Your task to perform on an android device: turn on priority inbox in the gmail app Image 0: 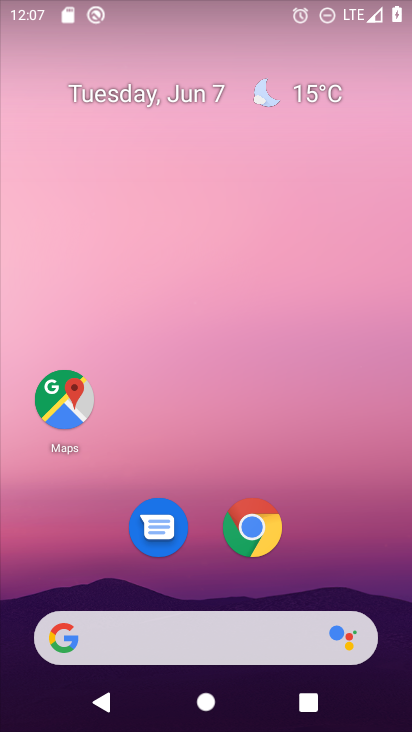
Step 0: drag from (362, 564) to (305, 117)
Your task to perform on an android device: turn on priority inbox in the gmail app Image 1: 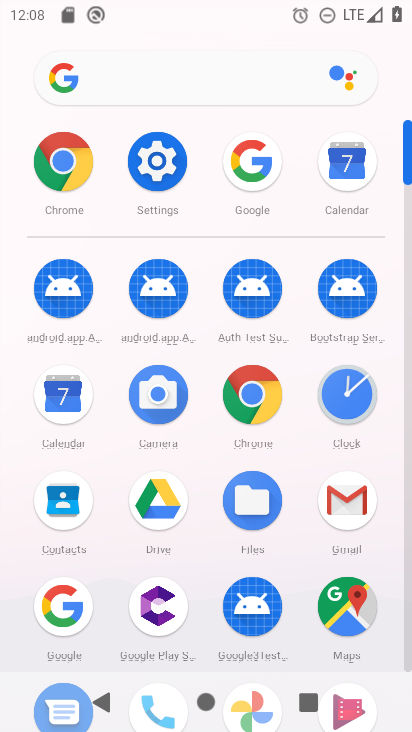
Step 1: click (351, 506)
Your task to perform on an android device: turn on priority inbox in the gmail app Image 2: 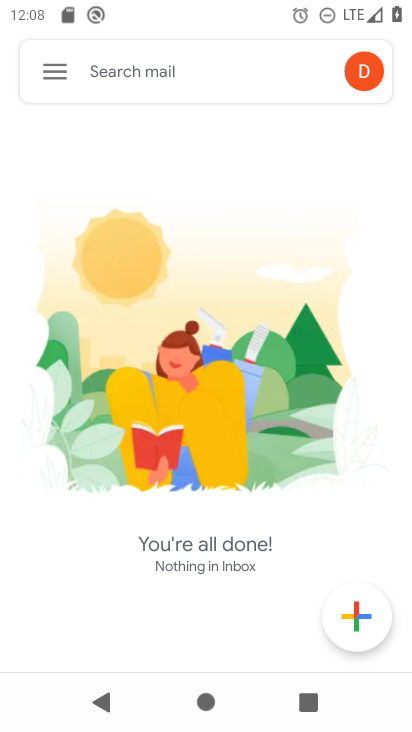
Step 2: click (48, 71)
Your task to perform on an android device: turn on priority inbox in the gmail app Image 3: 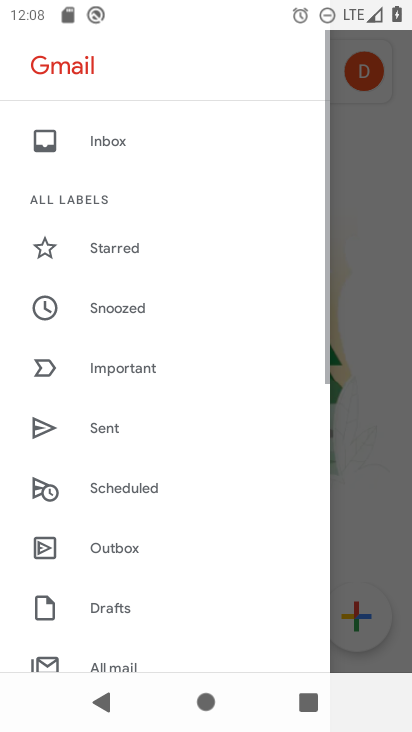
Step 3: drag from (252, 436) to (232, 298)
Your task to perform on an android device: turn on priority inbox in the gmail app Image 4: 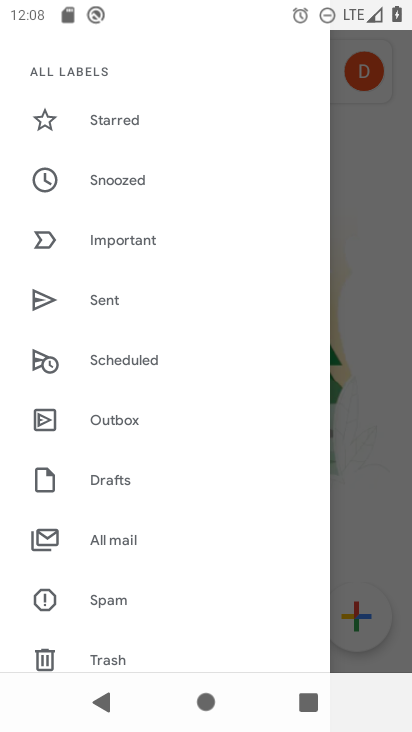
Step 4: drag from (246, 472) to (242, 314)
Your task to perform on an android device: turn on priority inbox in the gmail app Image 5: 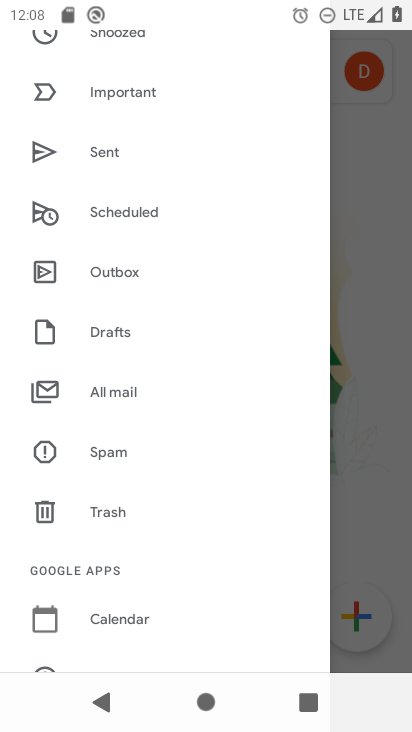
Step 5: drag from (252, 495) to (255, 315)
Your task to perform on an android device: turn on priority inbox in the gmail app Image 6: 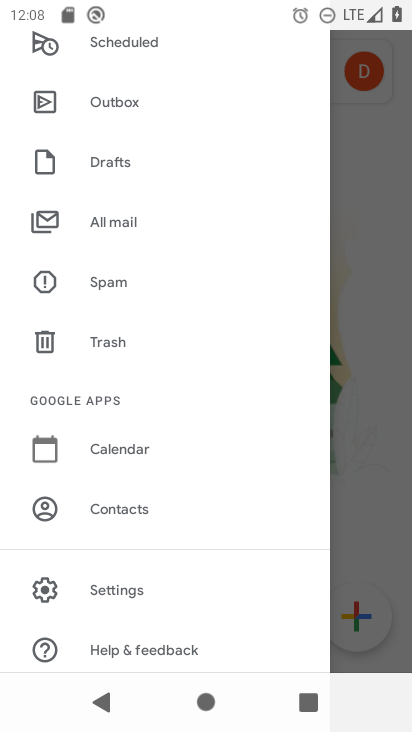
Step 6: drag from (257, 532) to (249, 383)
Your task to perform on an android device: turn on priority inbox in the gmail app Image 7: 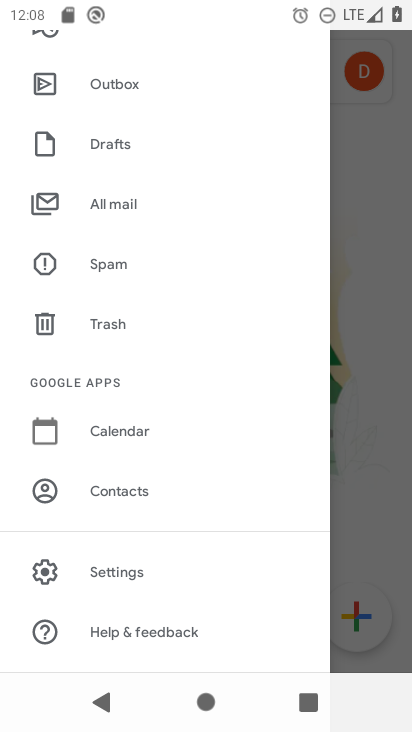
Step 7: click (180, 577)
Your task to perform on an android device: turn on priority inbox in the gmail app Image 8: 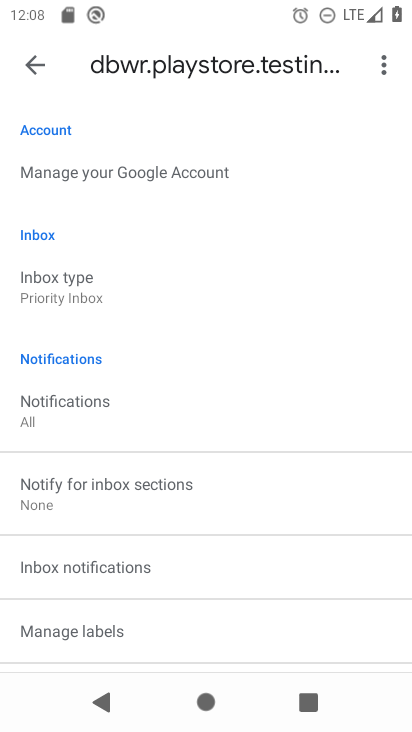
Step 8: drag from (276, 232) to (294, 421)
Your task to perform on an android device: turn on priority inbox in the gmail app Image 9: 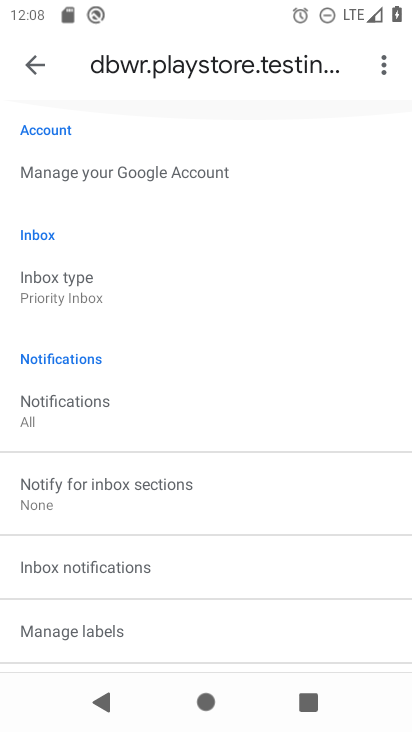
Step 9: drag from (312, 504) to (315, 301)
Your task to perform on an android device: turn on priority inbox in the gmail app Image 10: 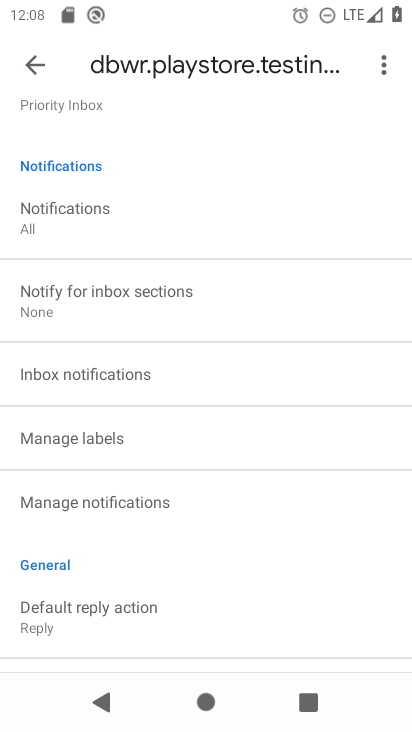
Step 10: drag from (320, 466) to (302, 287)
Your task to perform on an android device: turn on priority inbox in the gmail app Image 11: 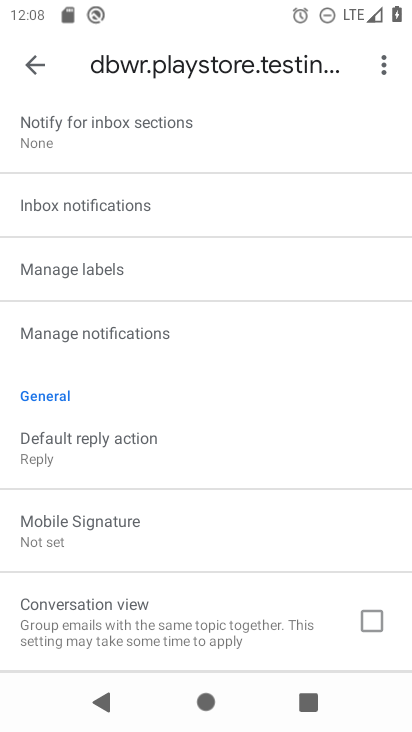
Step 11: drag from (332, 462) to (311, 324)
Your task to perform on an android device: turn on priority inbox in the gmail app Image 12: 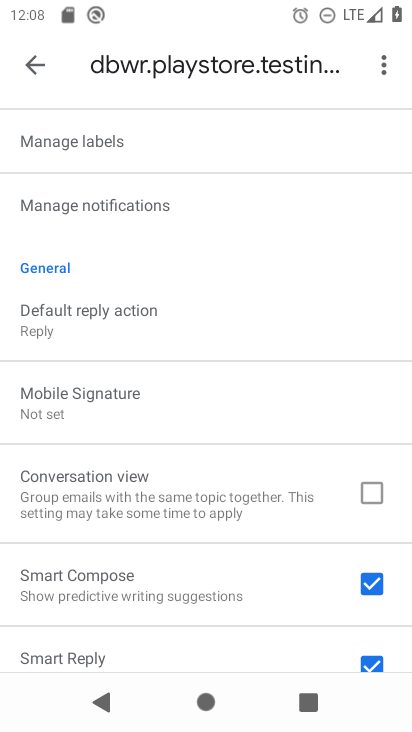
Step 12: drag from (290, 559) to (300, 381)
Your task to perform on an android device: turn on priority inbox in the gmail app Image 13: 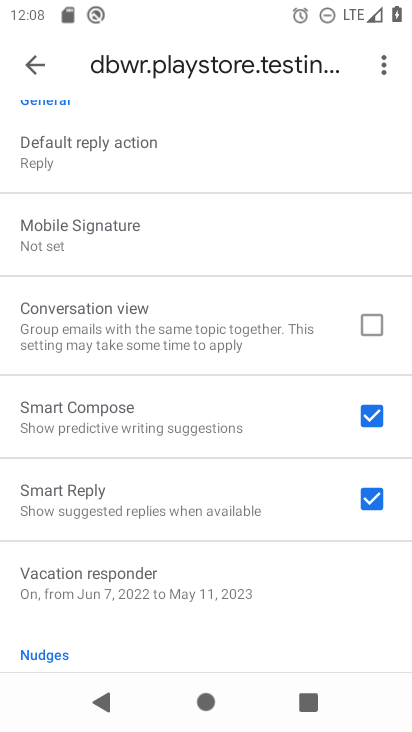
Step 13: drag from (301, 583) to (307, 436)
Your task to perform on an android device: turn on priority inbox in the gmail app Image 14: 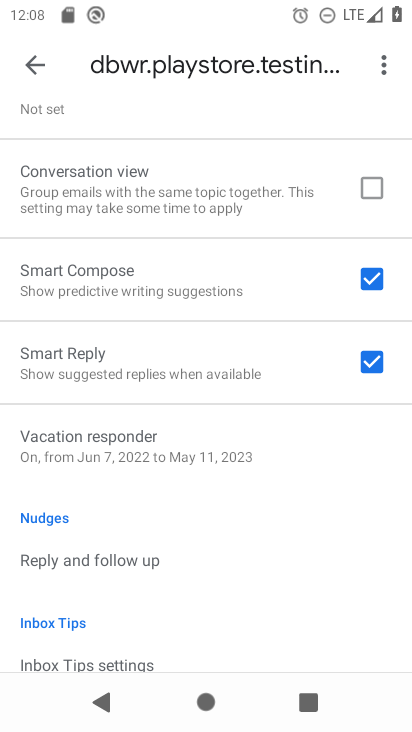
Step 14: drag from (307, 514) to (287, 316)
Your task to perform on an android device: turn on priority inbox in the gmail app Image 15: 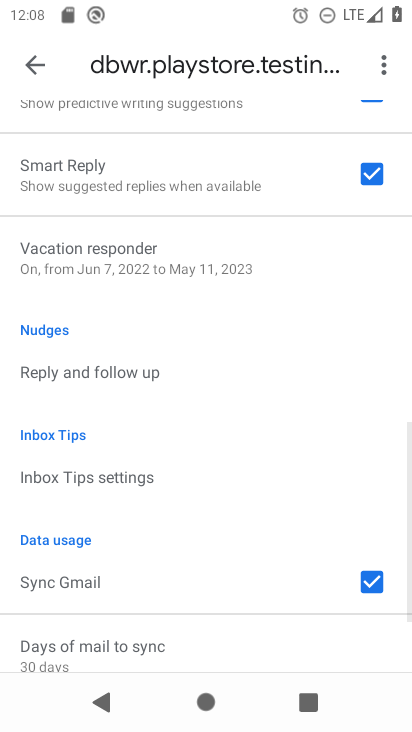
Step 15: drag from (301, 212) to (308, 490)
Your task to perform on an android device: turn on priority inbox in the gmail app Image 16: 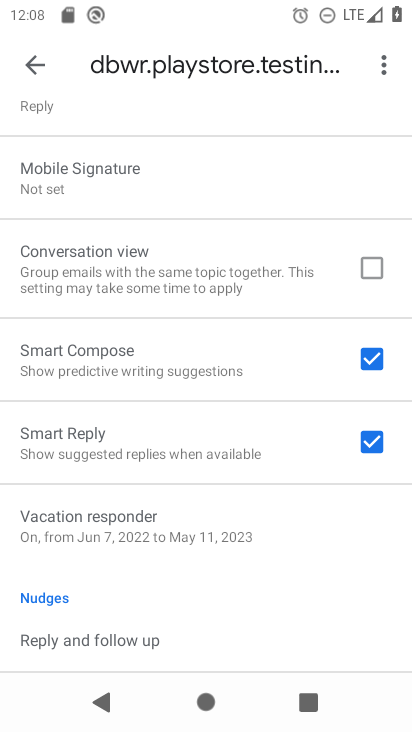
Step 16: drag from (280, 191) to (297, 400)
Your task to perform on an android device: turn on priority inbox in the gmail app Image 17: 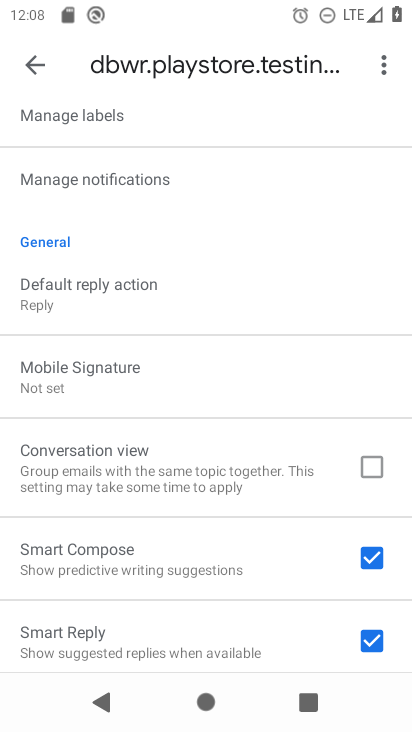
Step 17: drag from (286, 193) to (287, 404)
Your task to perform on an android device: turn on priority inbox in the gmail app Image 18: 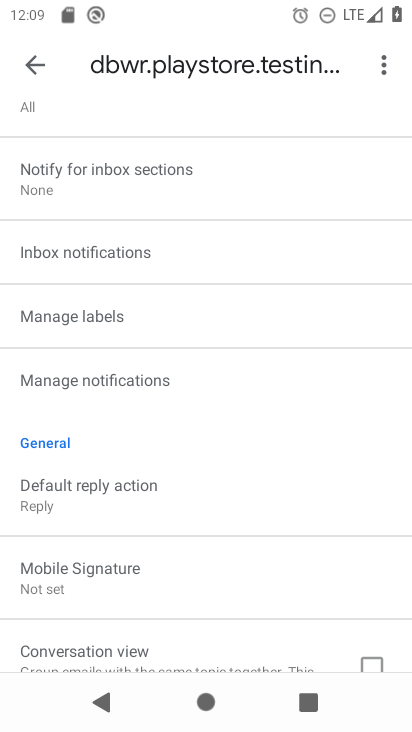
Step 18: drag from (279, 181) to (284, 461)
Your task to perform on an android device: turn on priority inbox in the gmail app Image 19: 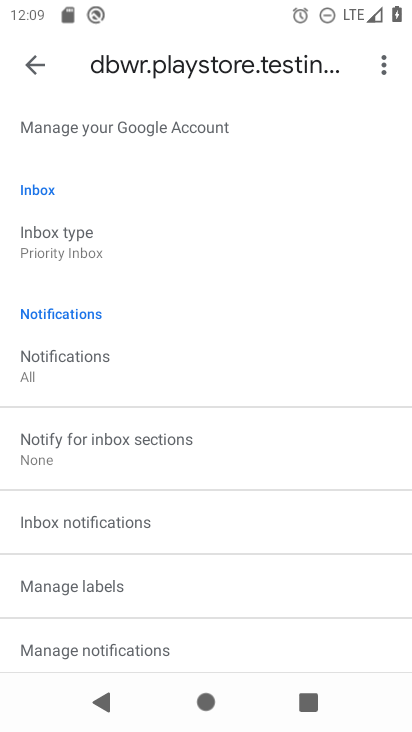
Step 19: click (85, 259)
Your task to perform on an android device: turn on priority inbox in the gmail app Image 20: 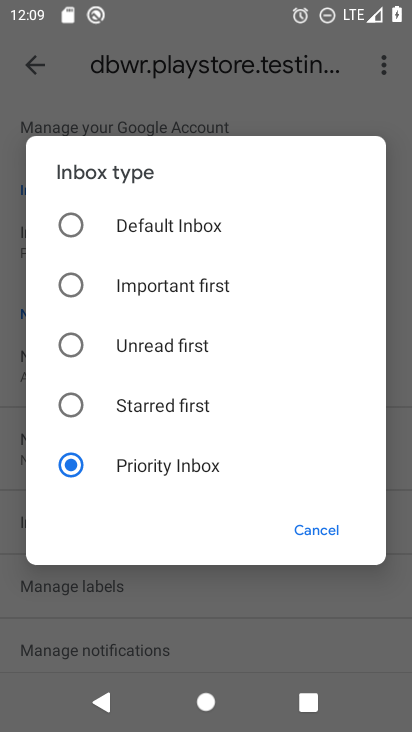
Step 20: task complete